Your task to perform on an android device: Open Maps and search for coffee Image 0: 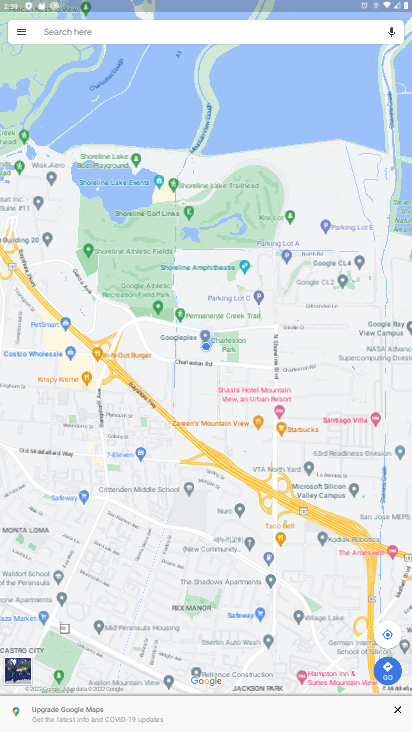
Step 0: click (239, 35)
Your task to perform on an android device: Open Maps and search for coffee Image 1: 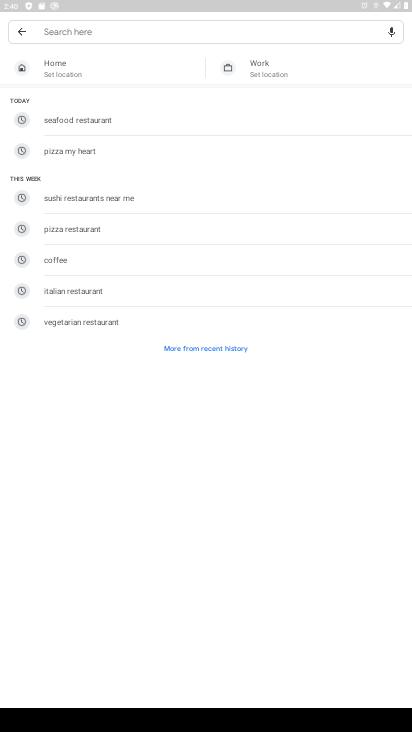
Step 1: click (115, 256)
Your task to perform on an android device: Open Maps and search for coffee Image 2: 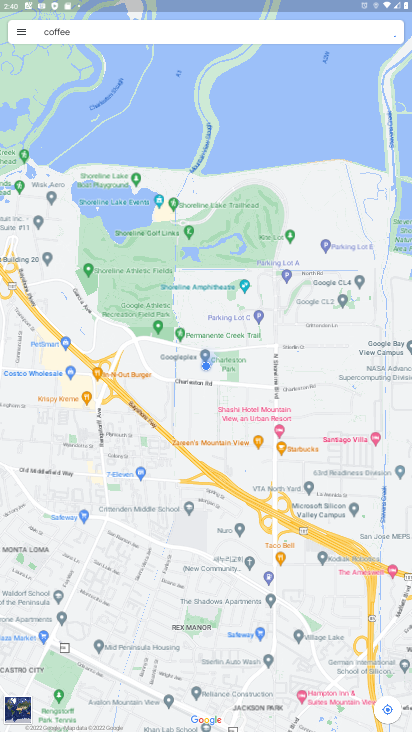
Step 2: task complete